Your task to perform on an android device: Open Yahoo.com Image 0: 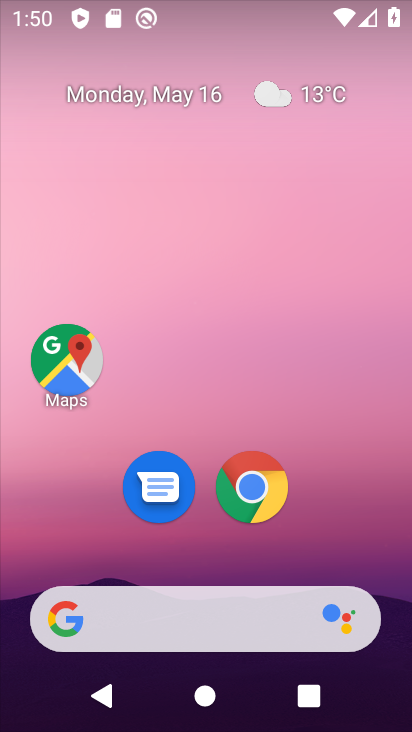
Step 0: click (247, 502)
Your task to perform on an android device: Open Yahoo.com Image 1: 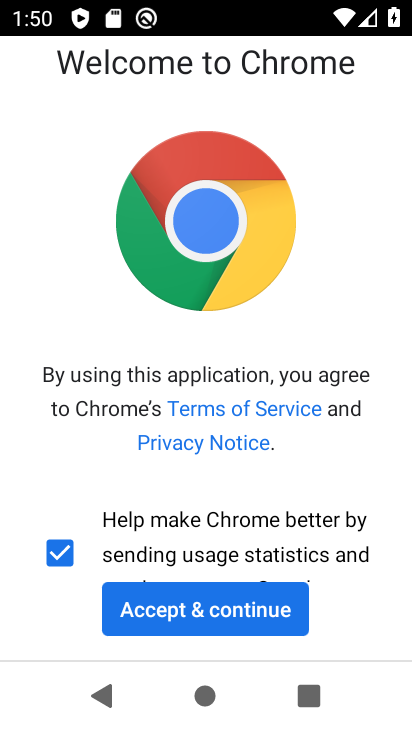
Step 1: click (206, 618)
Your task to perform on an android device: Open Yahoo.com Image 2: 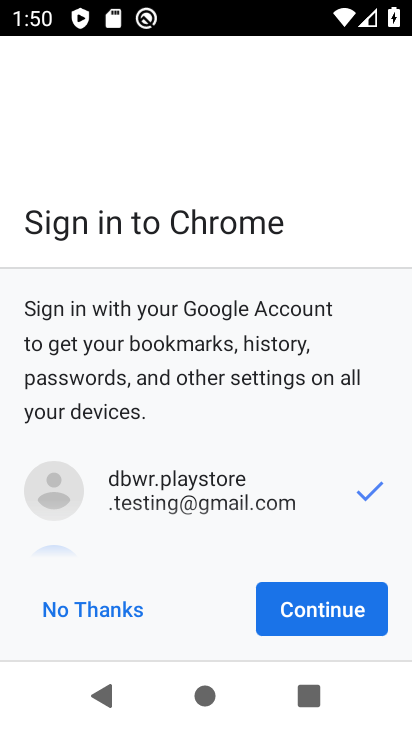
Step 2: click (290, 621)
Your task to perform on an android device: Open Yahoo.com Image 3: 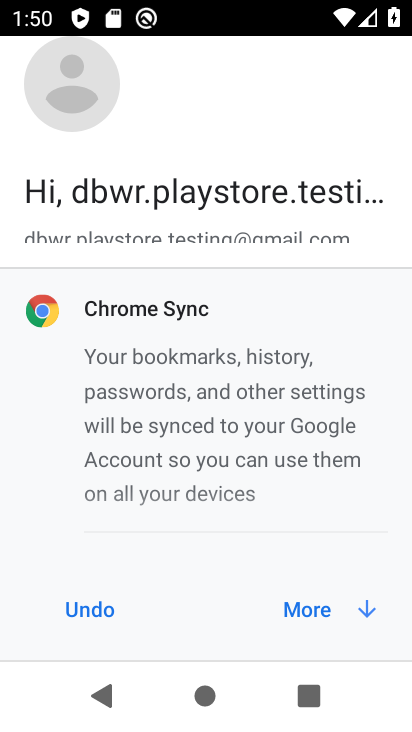
Step 3: click (307, 615)
Your task to perform on an android device: Open Yahoo.com Image 4: 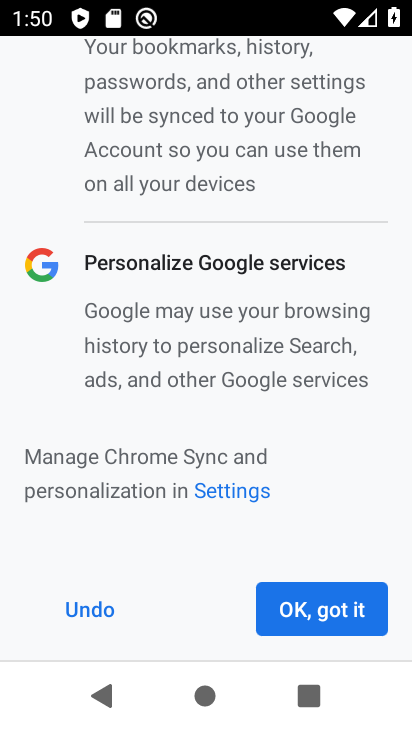
Step 4: click (307, 615)
Your task to perform on an android device: Open Yahoo.com Image 5: 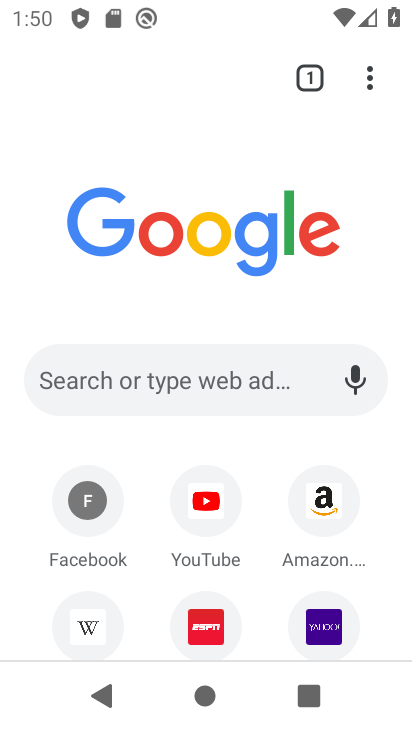
Step 5: click (335, 633)
Your task to perform on an android device: Open Yahoo.com Image 6: 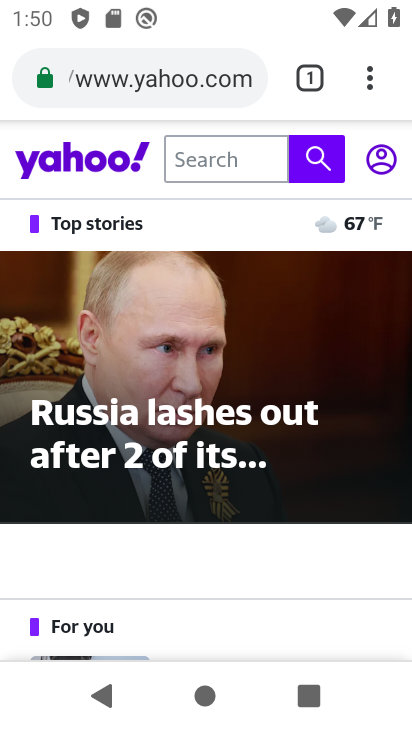
Step 6: task complete